Your task to perform on an android device: turn smart compose on in the gmail app Image 0: 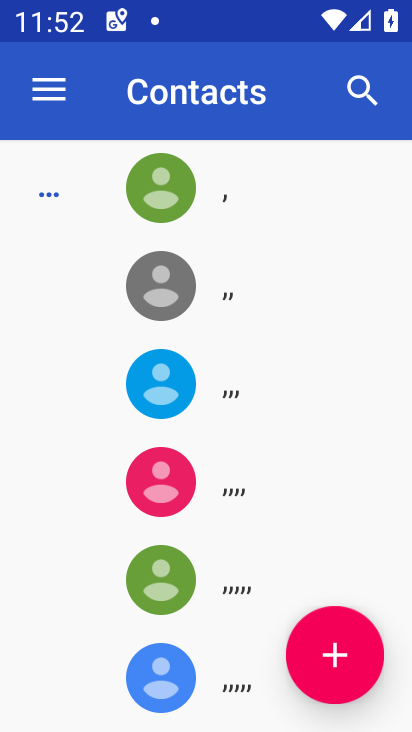
Step 0: press home button
Your task to perform on an android device: turn smart compose on in the gmail app Image 1: 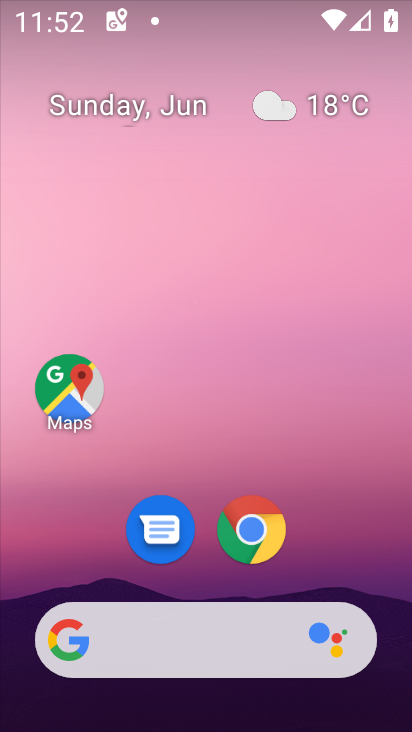
Step 1: drag from (366, 543) to (375, 40)
Your task to perform on an android device: turn smart compose on in the gmail app Image 2: 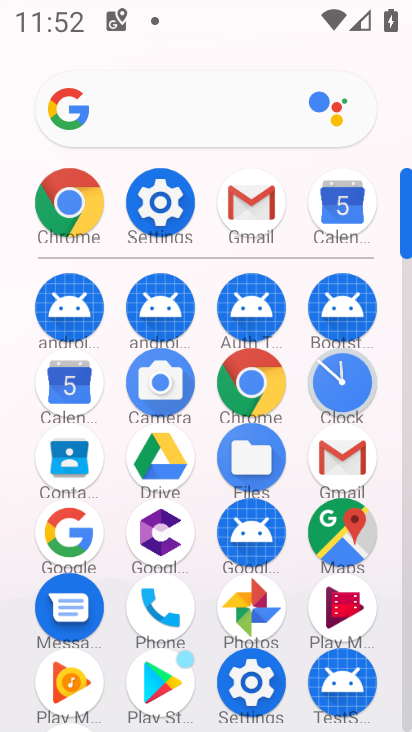
Step 2: click (248, 225)
Your task to perform on an android device: turn smart compose on in the gmail app Image 3: 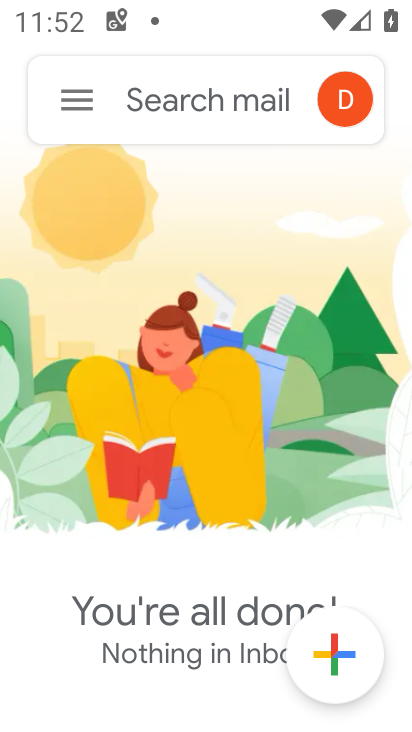
Step 3: click (51, 99)
Your task to perform on an android device: turn smart compose on in the gmail app Image 4: 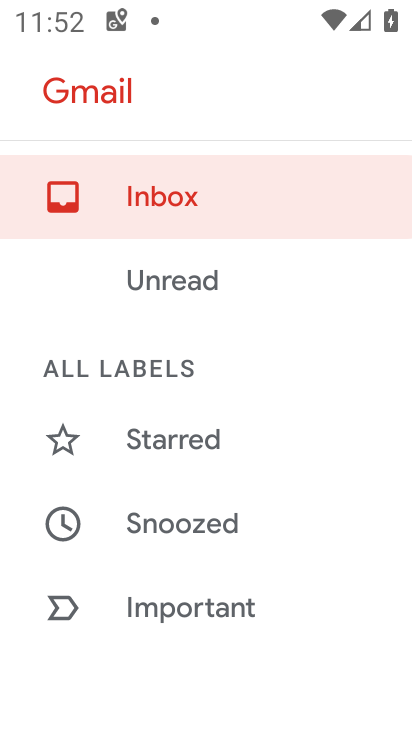
Step 4: drag from (178, 577) to (227, 139)
Your task to perform on an android device: turn smart compose on in the gmail app Image 5: 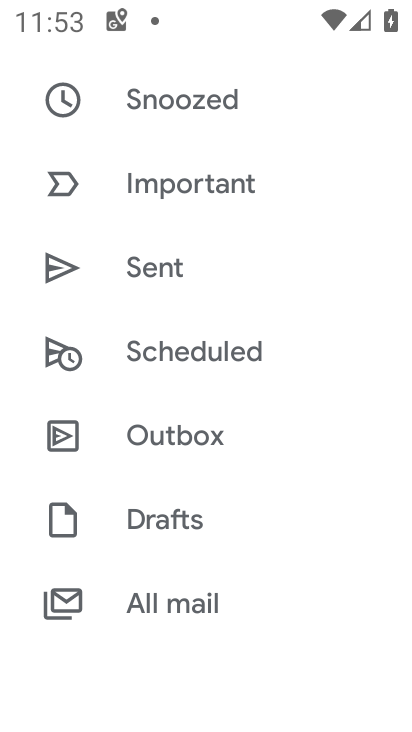
Step 5: drag from (210, 581) to (184, 85)
Your task to perform on an android device: turn smart compose on in the gmail app Image 6: 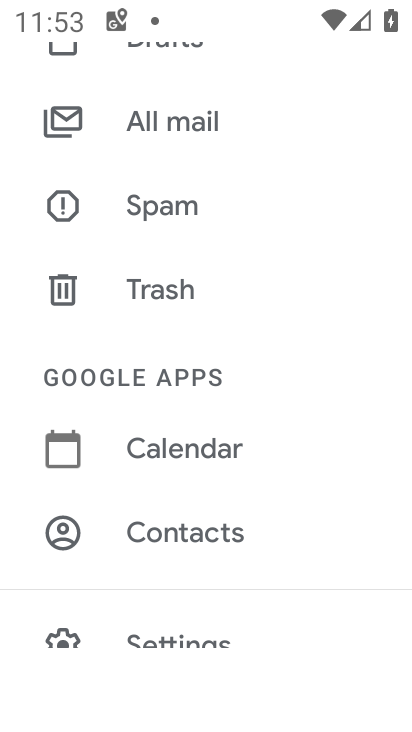
Step 6: drag from (173, 586) to (197, 220)
Your task to perform on an android device: turn smart compose on in the gmail app Image 7: 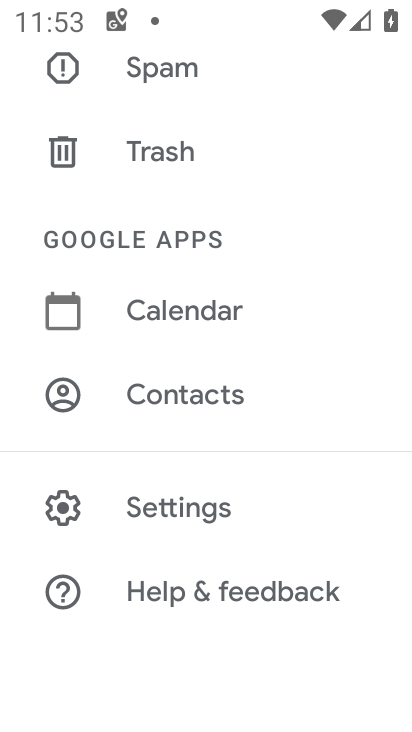
Step 7: click (170, 538)
Your task to perform on an android device: turn smart compose on in the gmail app Image 8: 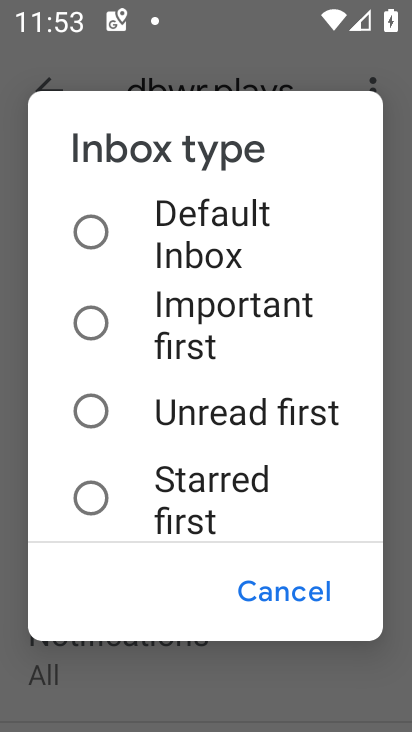
Step 8: click (306, 590)
Your task to perform on an android device: turn smart compose on in the gmail app Image 9: 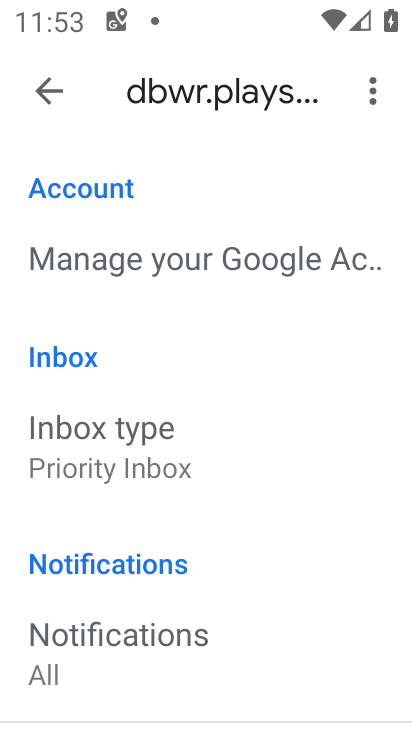
Step 9: task complete